Your task to perform on an android device: Go to Amazon Image 0: 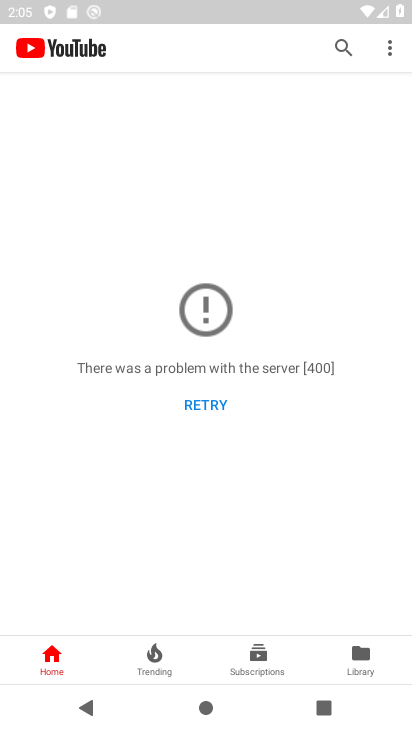
Step 0: press home button
Your task to perform on an android device: Go to Amazon Image 1: 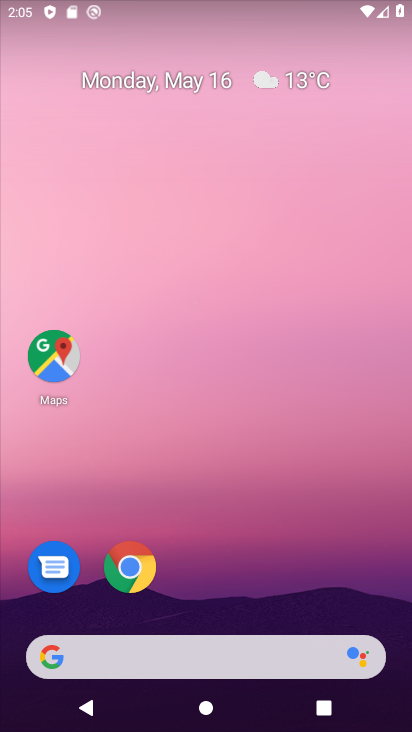
Step 1: click (129, 581)
Your task to perform on an android device: Go to Amazon Image 2: 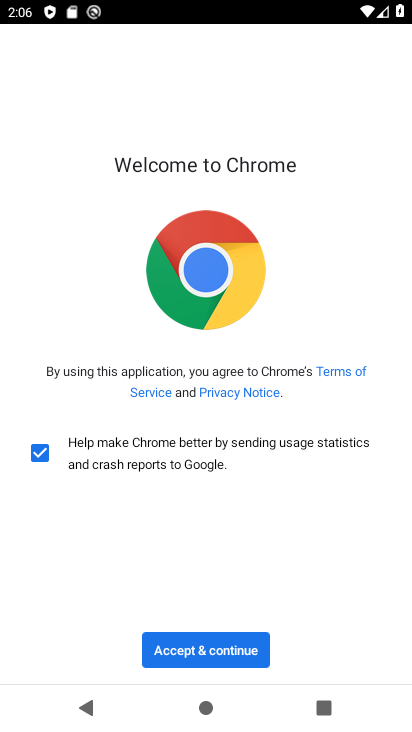
Step 2: click (117, 574)
Your task to perform on an android device: Go to Amazon Image 3: 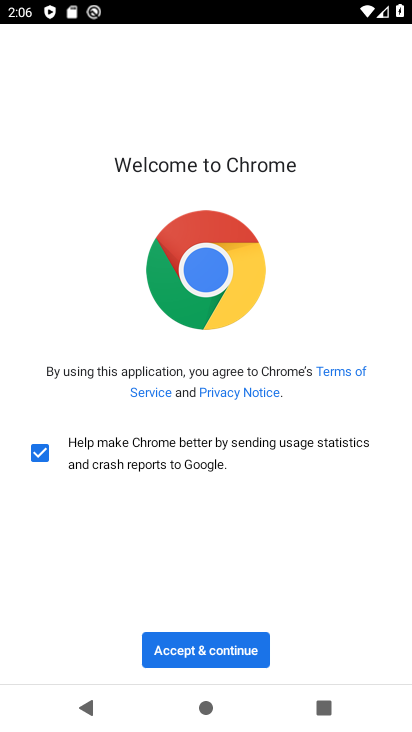
Step 3: click (233, 655)
Your task to perform on an android device: Go to Amazon Image 4: 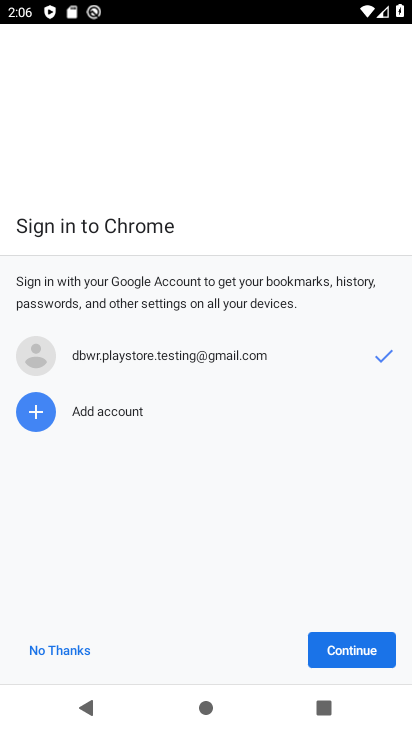
Step 4: drag from (190, 659) to (245, 664)
Your task to perform on an android device: Go to Amazon Image 5: 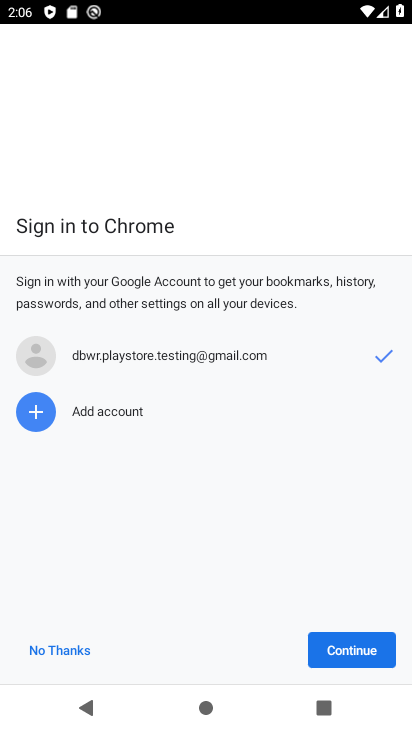
Step 5: click (185, 649)
Your task to perform on an android device: Go to Amazon Image 6: 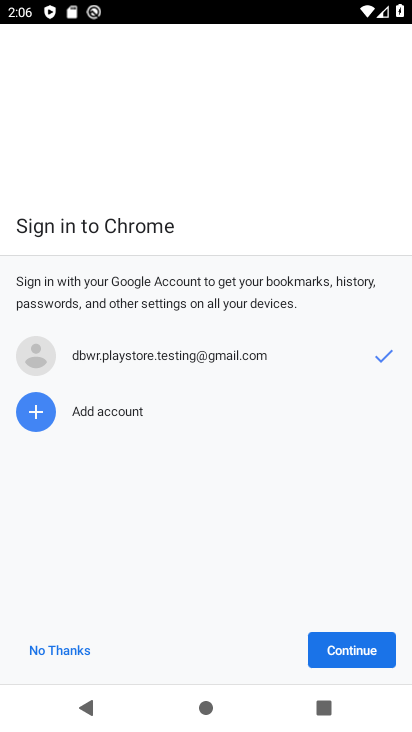
Step 6: click (352, 652)
Your task to perform on an android device: Go to Amazon Image 7: 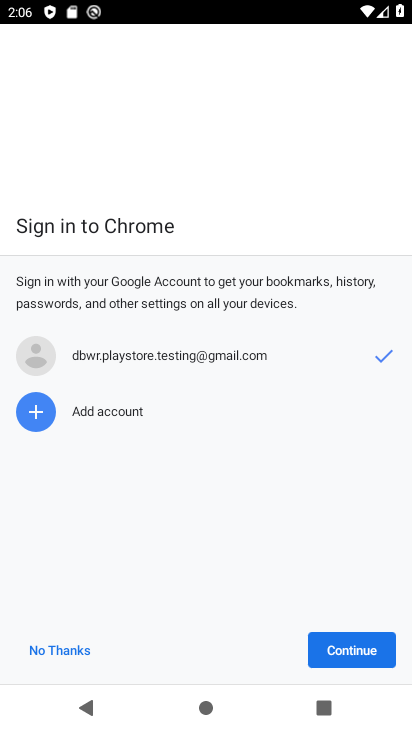
Step 7: click (352, 652)
Your task to perform on an android device: Go to Amazon Image 8: 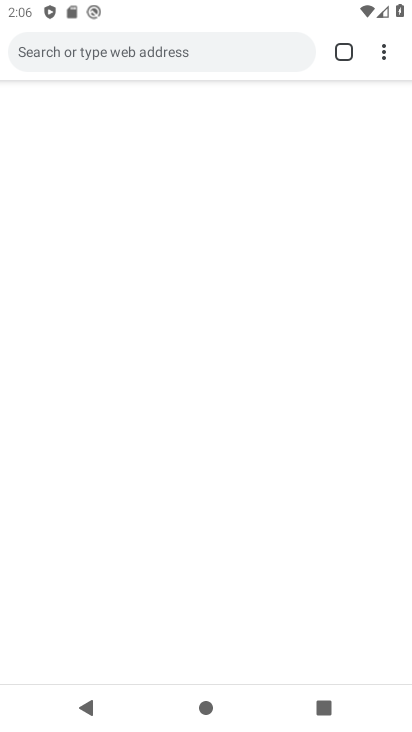
Step 8: click (352, 652)
Your task to perform on an android device: Go to Amazon Image 9: 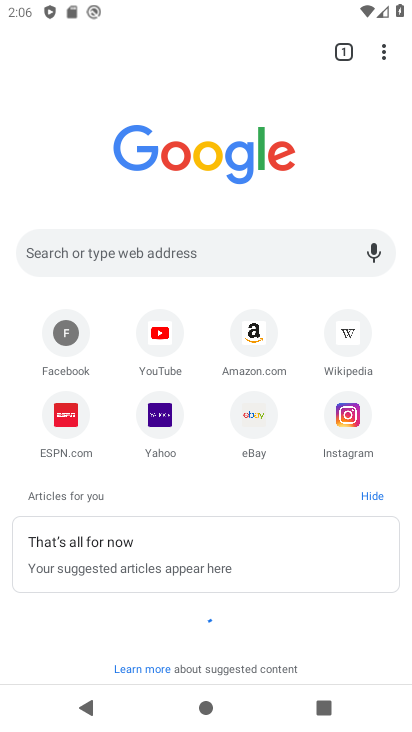
Step 9: click (134, 248)
Your task to perform on an android device: Go to Amazon Image 10: 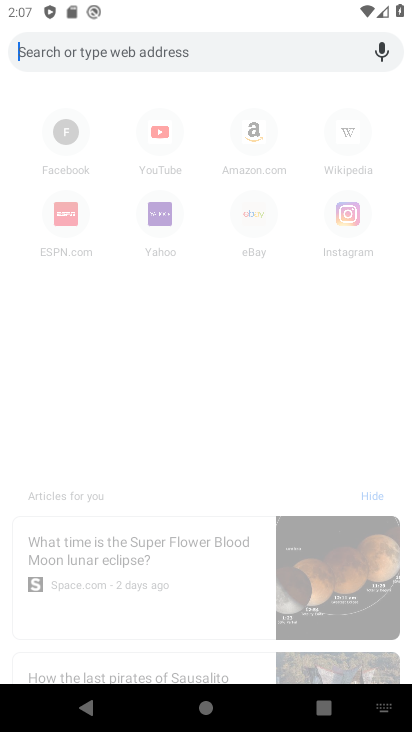
Step 10: type "Amazon"
Your task to perform on an android device: Go to Amazon Image 11: 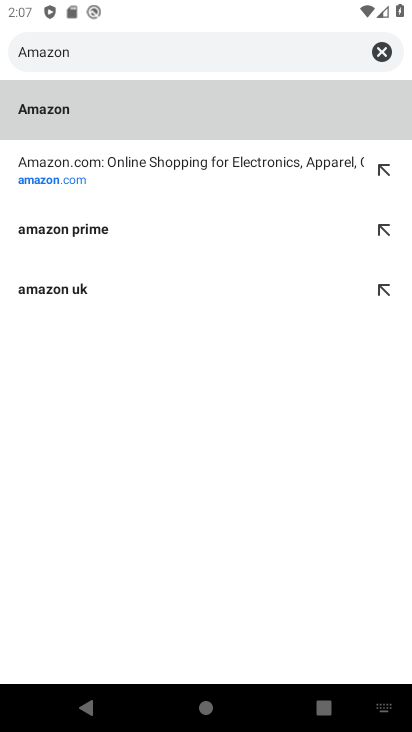
Step 11: click (49, 123)
Your task to perform on an android device: Go to Amazon Image 12: 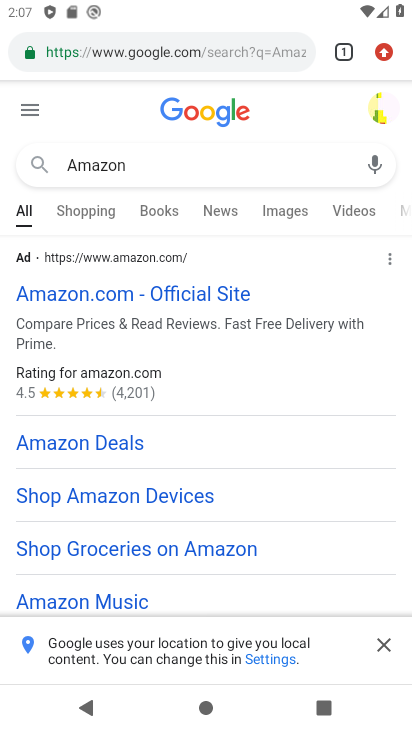
Step 12: click (114, 306)
Your task to perform on an android device: Go to Amazon Image 13: 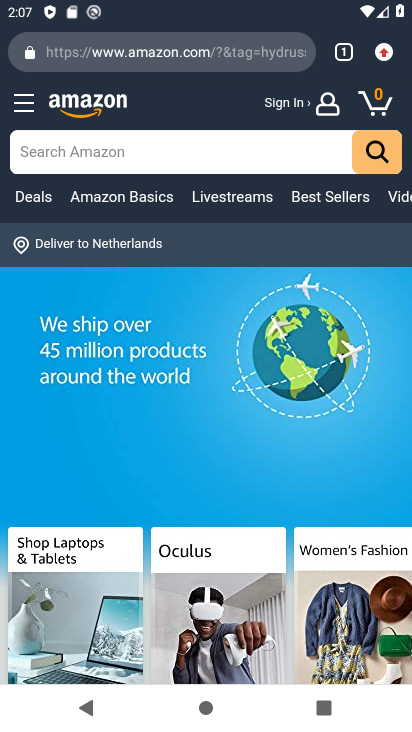
Step 13: task complete